Your task to perform on an android device: Go to privacy settings Image 0: 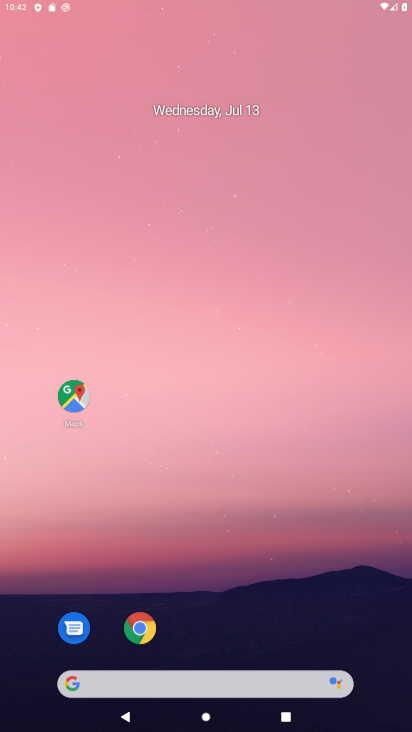
Step 0: press home button
Your task to perform on an android device: Go to privacy settings Image 1: 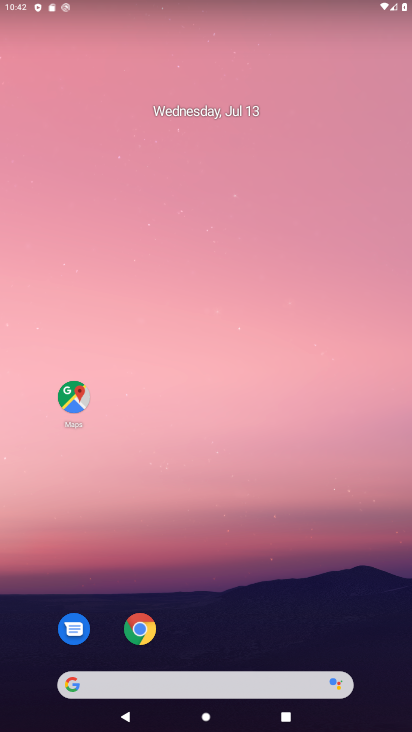
Step 1: drag from (226, 726) to (233, 92)
Your task to perform on an android device: Go to privacy settings Image 2: 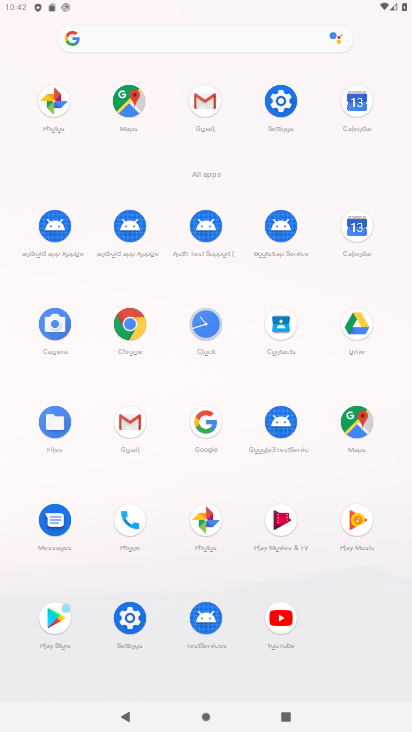
Step 2: click (282, 103)
Your task to perform on an android device: Go to privacy settings Image 3: 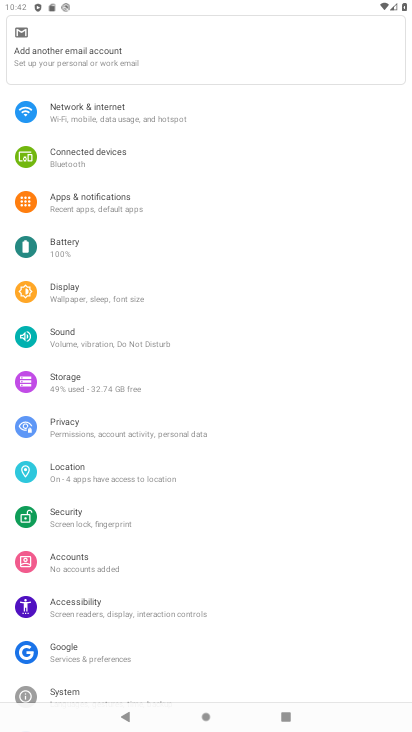
Step 3: click (65, 428)
Your task to perform on an android device: Go to privacy settings Image 4: 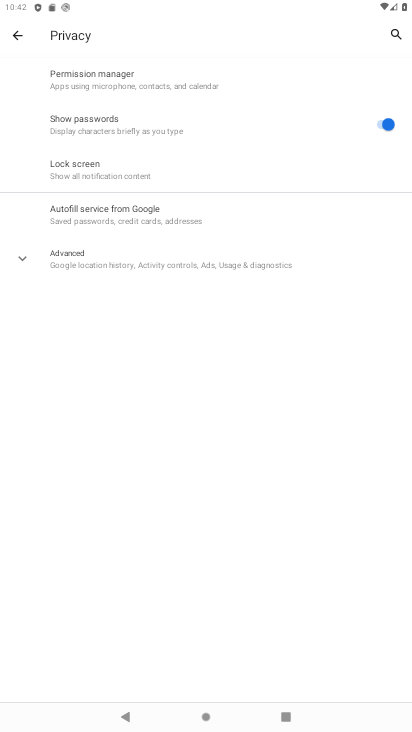
Step 4: task complete